Your task to perform on an android device: Show me recent news Image 0: 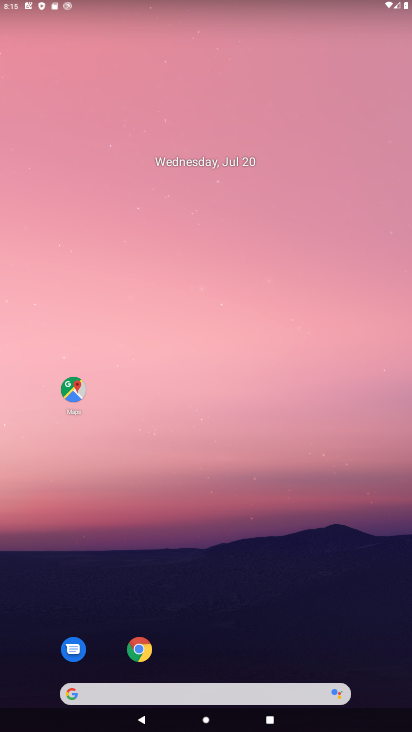
Step 0: drag from (200, 694) to (222, 1)
Your task to perform on an android device: Show me recent news Image 1: 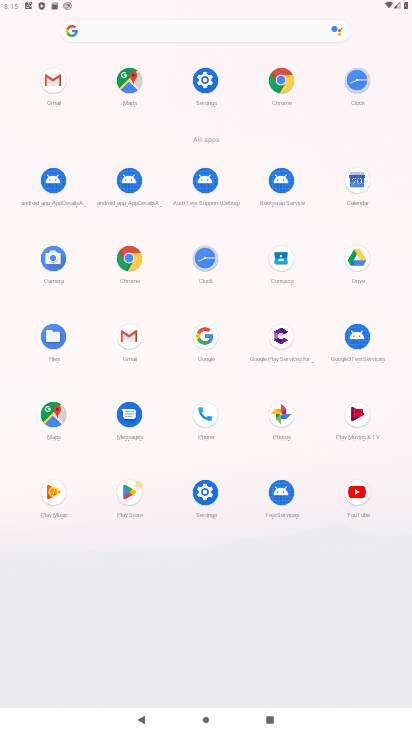
Step 1: click (205, 336)
Your task to perform on an android device: Show me recent news Image 2: 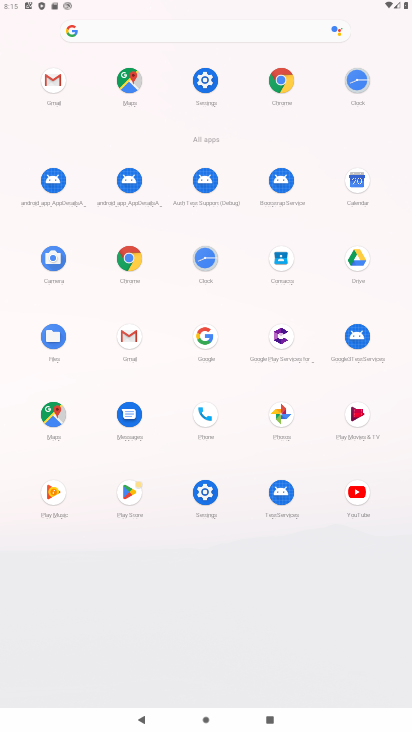
Step 2: click (205, 336)
Your task to perform on an android device: Show me recent news Image 3: 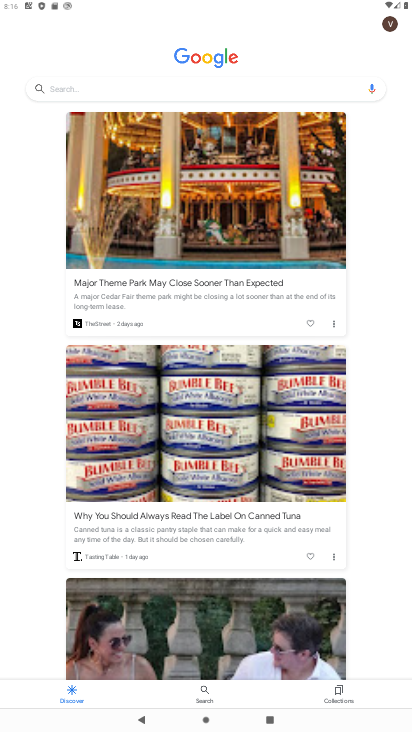
Step 3: click (231, 92)
Your task to perform on an android device: Show me recent news Image 4: 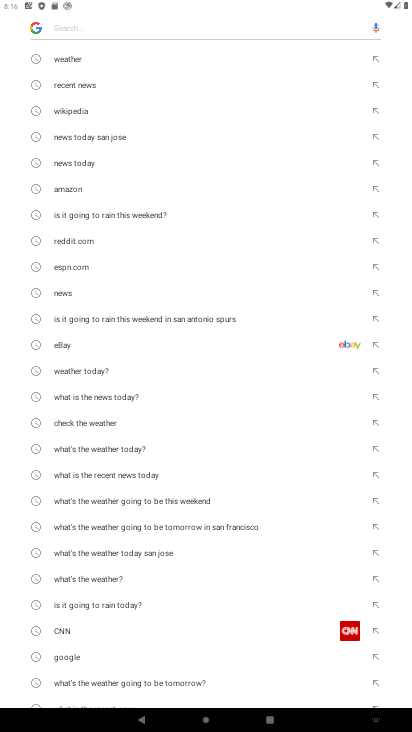
Step 4: type "recent news"
Your task to perform on an android device: Show me recent news Image 5: 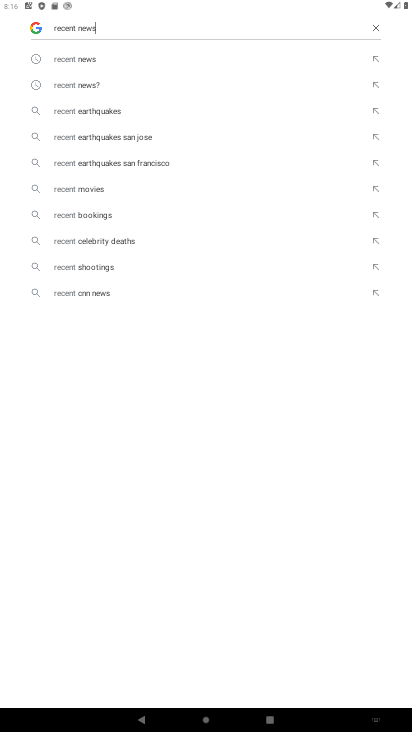
Step 5: type ""
Your task to perform on an android device: Show me recent news Image 6: 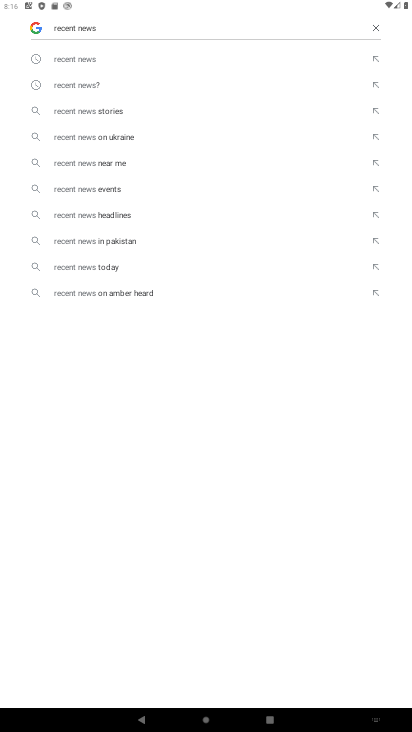
Step 6: click (80, 61)
Your task to perform on an android device: Show me recent news Image 7: 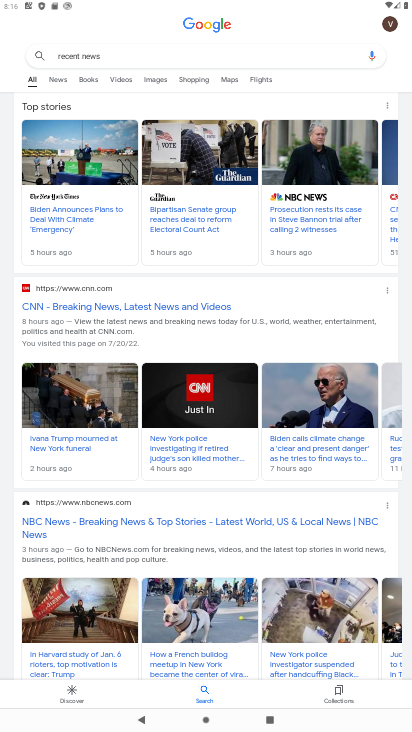
Step 7: click (70, 219)
Your task to perform on an android device: Show me recent news Image 8: 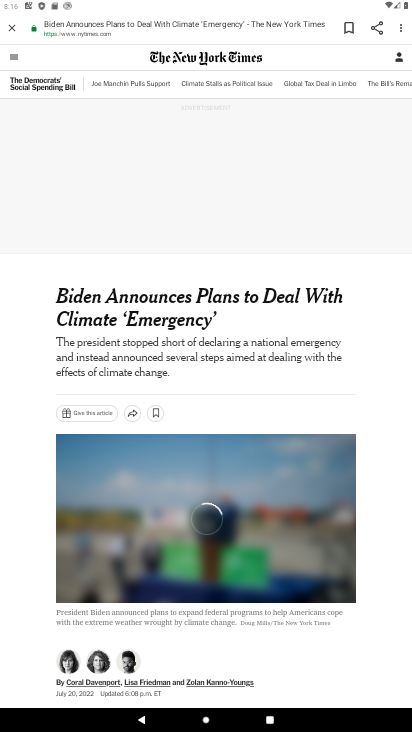
Step 8: task complete